Your task to perform on an android device: Go to privacy settings Image 0: 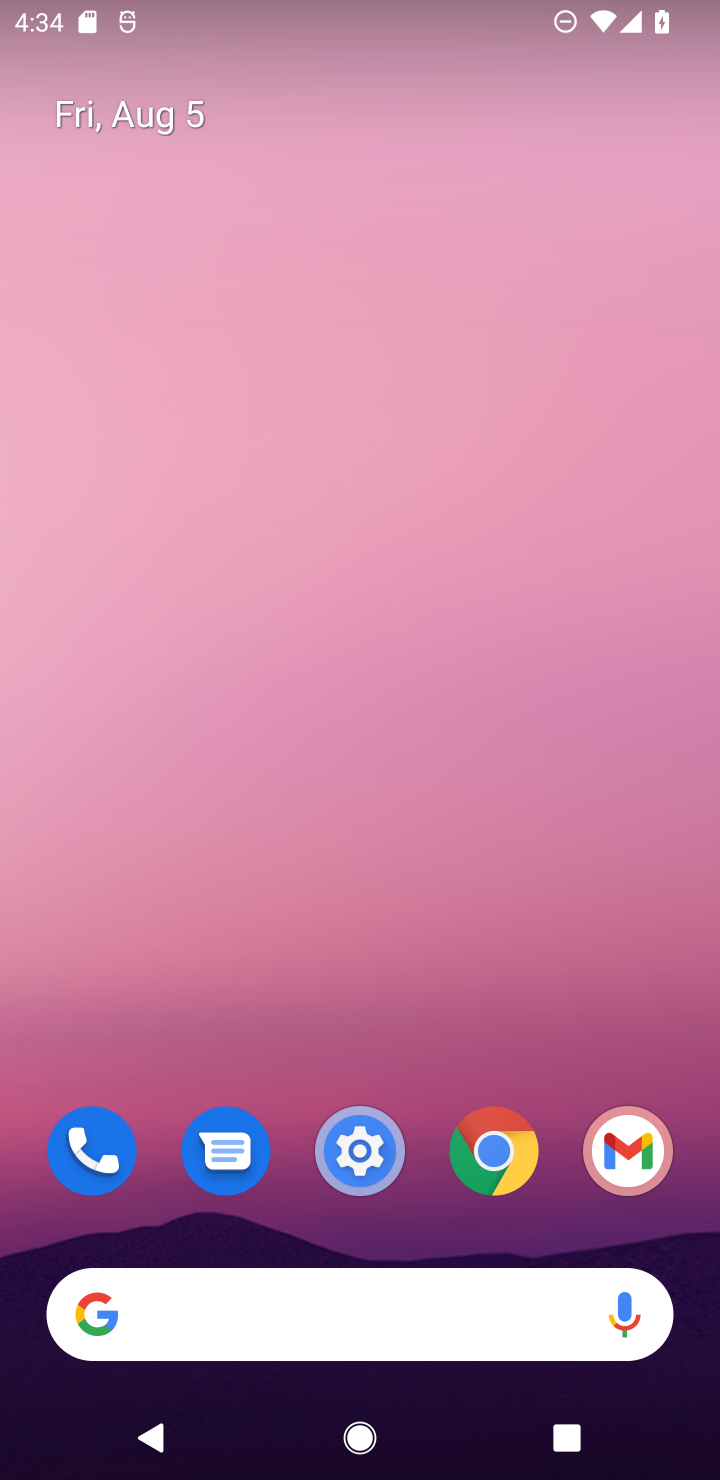
Step 0: click (350, 1127)
Your task to perform on an android device: Go to privacy settings Image 1: 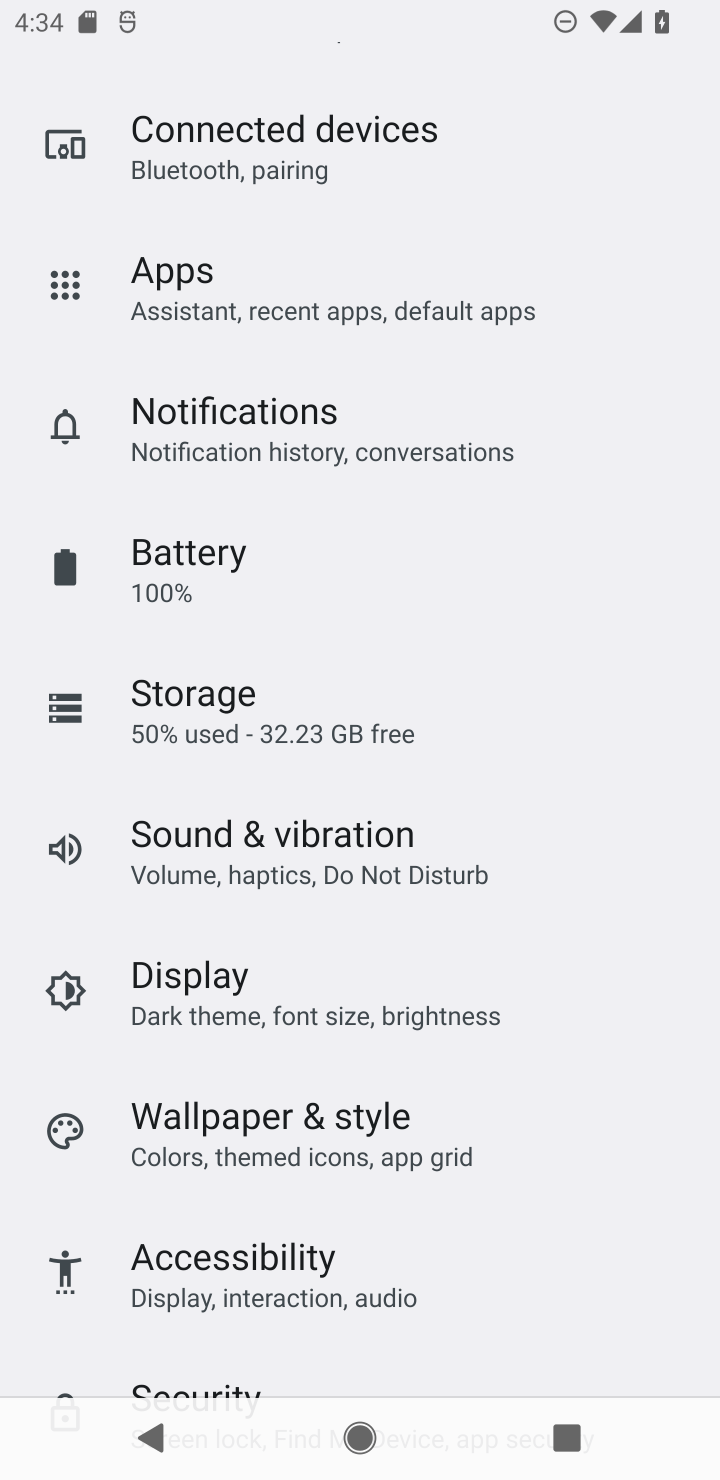
Step 1: drag from (197, 1284) to (150, 317)
Your task to perform on an android device: Go to privacy settings Image 2: 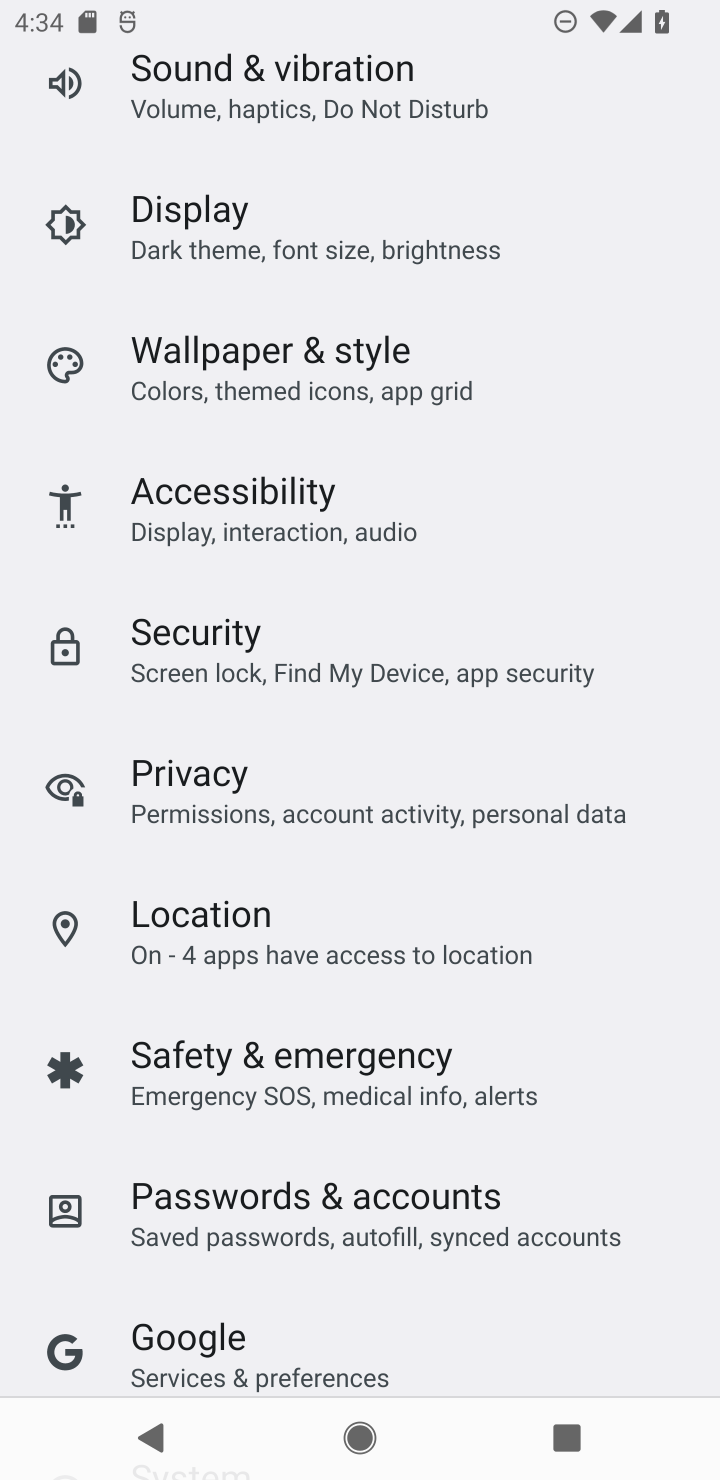
Step 2: drag from (269, 1073) to (261, 902)
Your task to perform on an android device: Go to privacy settings Image 3: 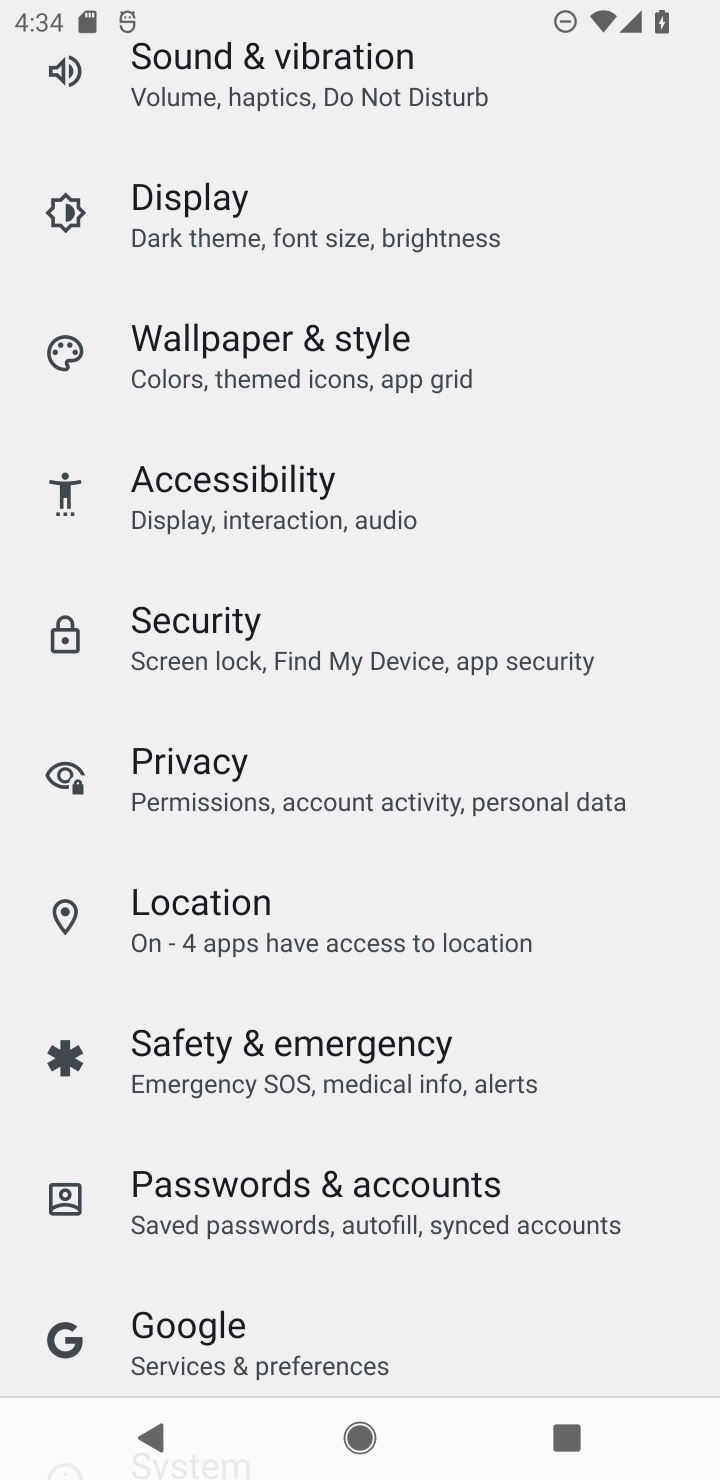
Step 3: click (285, 750)
Your task to perform on an android device: Go to privacy settings Image 4: 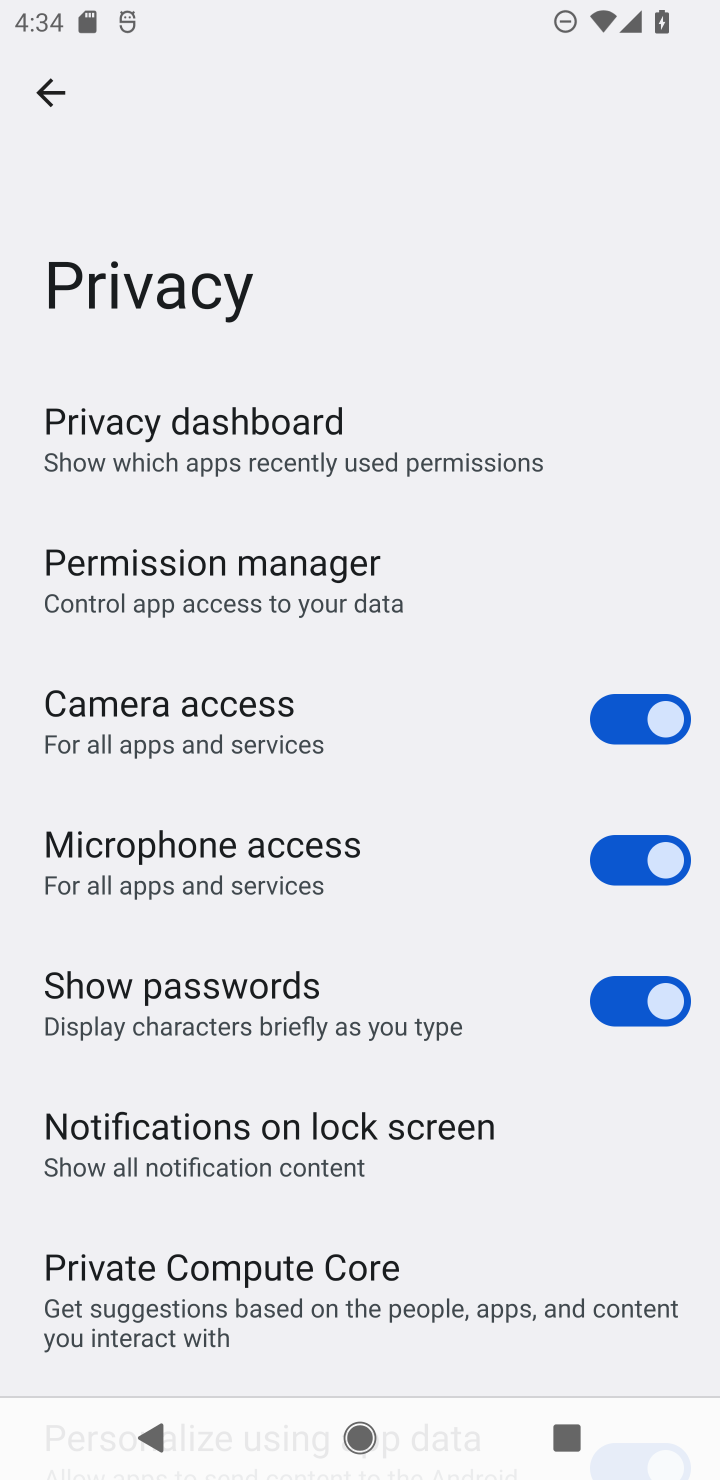
Step 4: task complete